Your task to perform on an android device: Open Google Chrome Image 0: 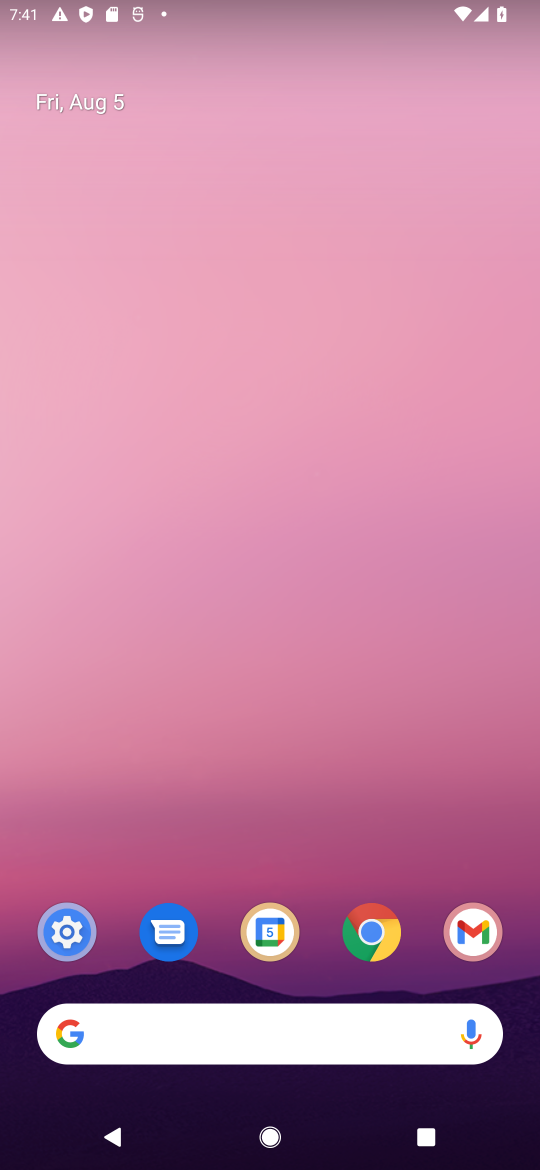
Step 0: click (371, 936)
Your task to perform on an android device: Open Google Chrome Image 1: 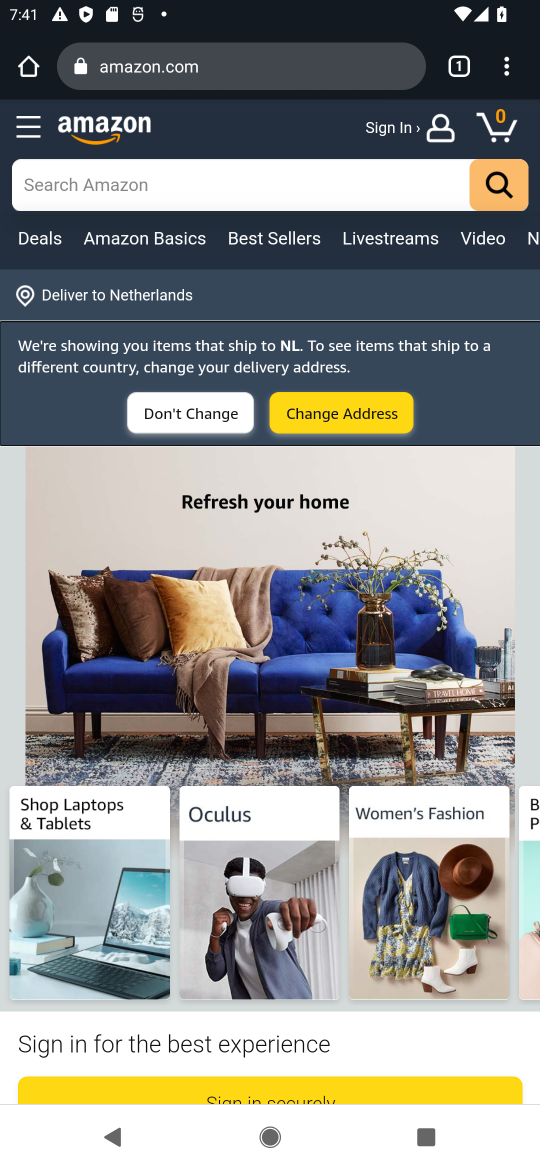
Step 1: task complete